Your task to perform on an android device: Go to location settings Image 0: 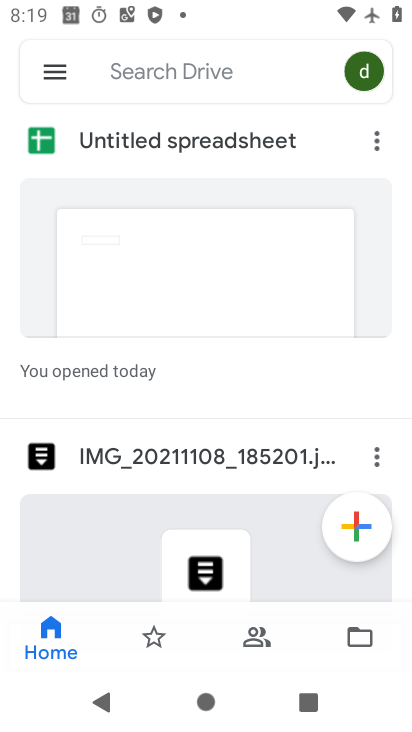
Step 0: press home button
Your task to perform on an android device: Go to location settings Image 1: 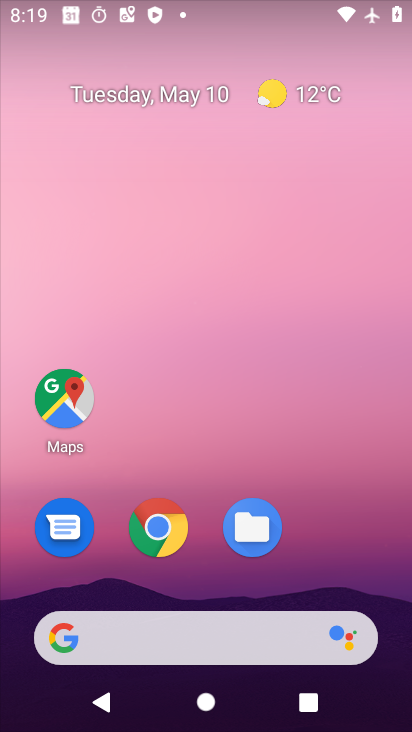
Step 1: drag from (337, 530) to (328, 164)
Your task to perform on an android device: Go to location settings Image 2: 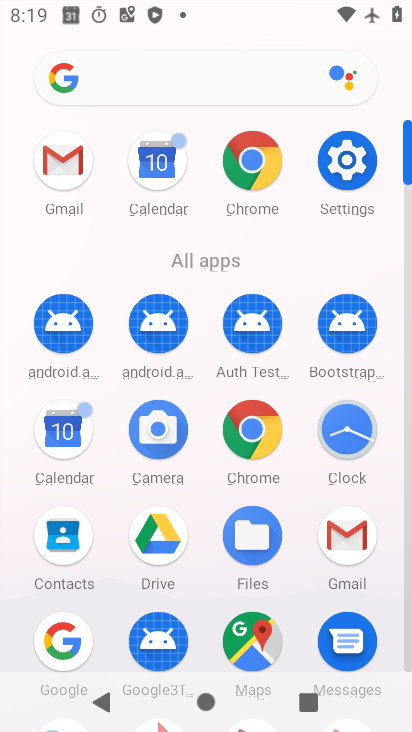
Step 2: click (347, 161)
Your task to perform on an android device: Go to location settings Image 3: 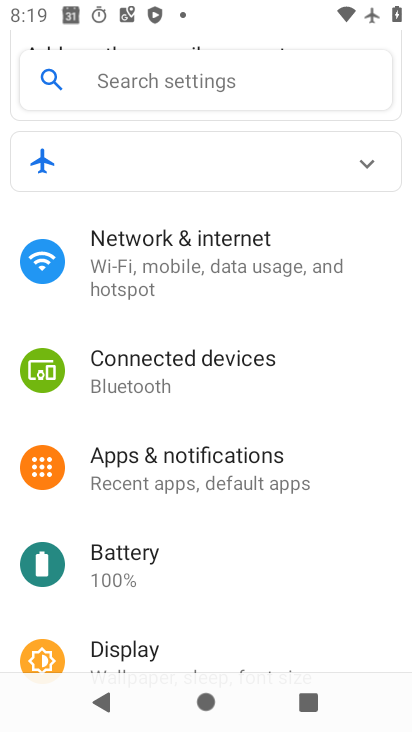
Step 3: drag from (190, 616) to (151, 212)
Your task to perform on an android device: Go to location settings Image 4: 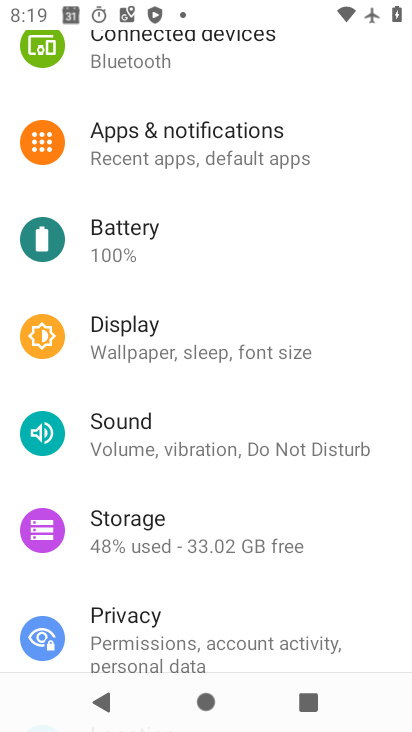
Step 4: drag from (197, 559) to (214, 207)
Your task to perform on an android device: Go to location settings Image 5: 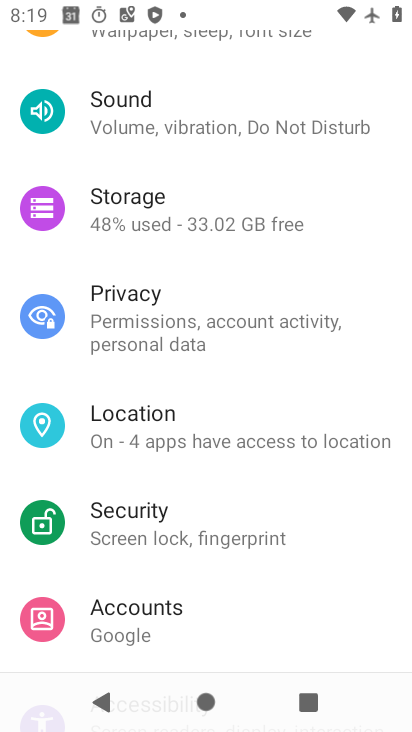
Step 5: click (208, 419)
Your task to perform on an android device: Go to location settings Image 6: 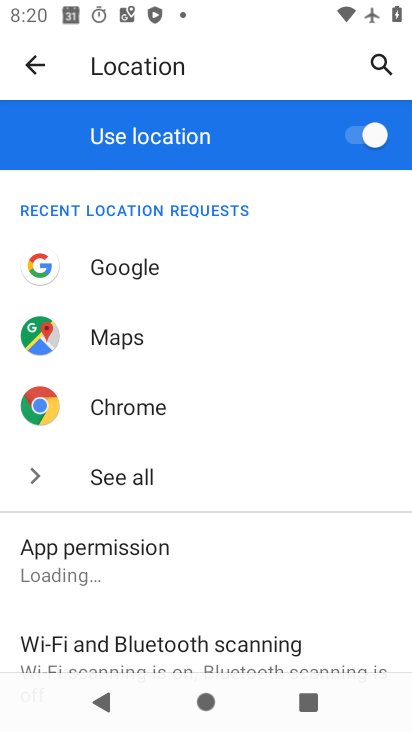
Step 6: task complete